Your task to perform on an android device: Clear all items from cart on bestbuy.com. Add "lenovo thinkpad" to the cart on bestbuy.com, then select checkout. Image 0: 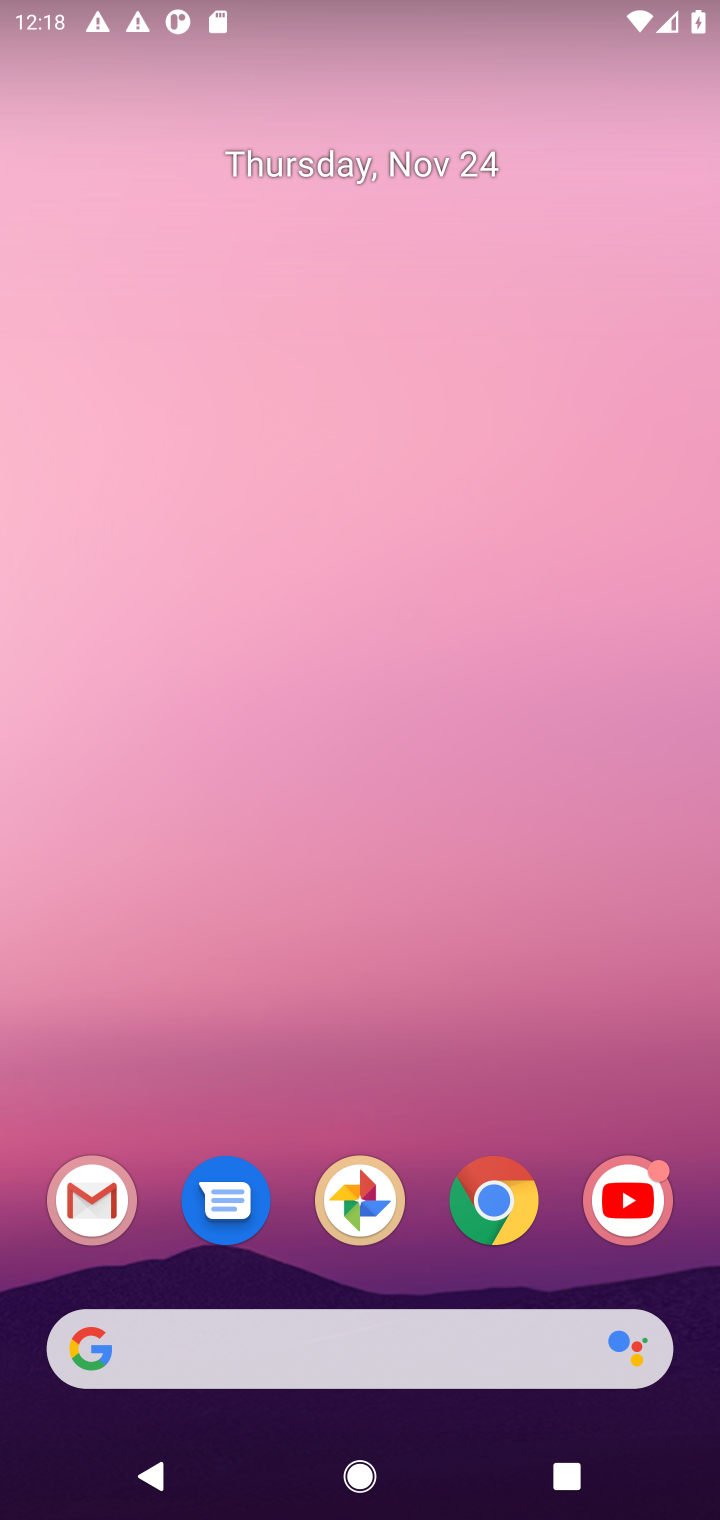
Step 0: click (405, 1347)
Your task to perform on an android device: Clear all items from cart on bestbuy.com. Add "lenovo thinkpad" to the cart on bestbuy.com, then select checkout. Image 1: 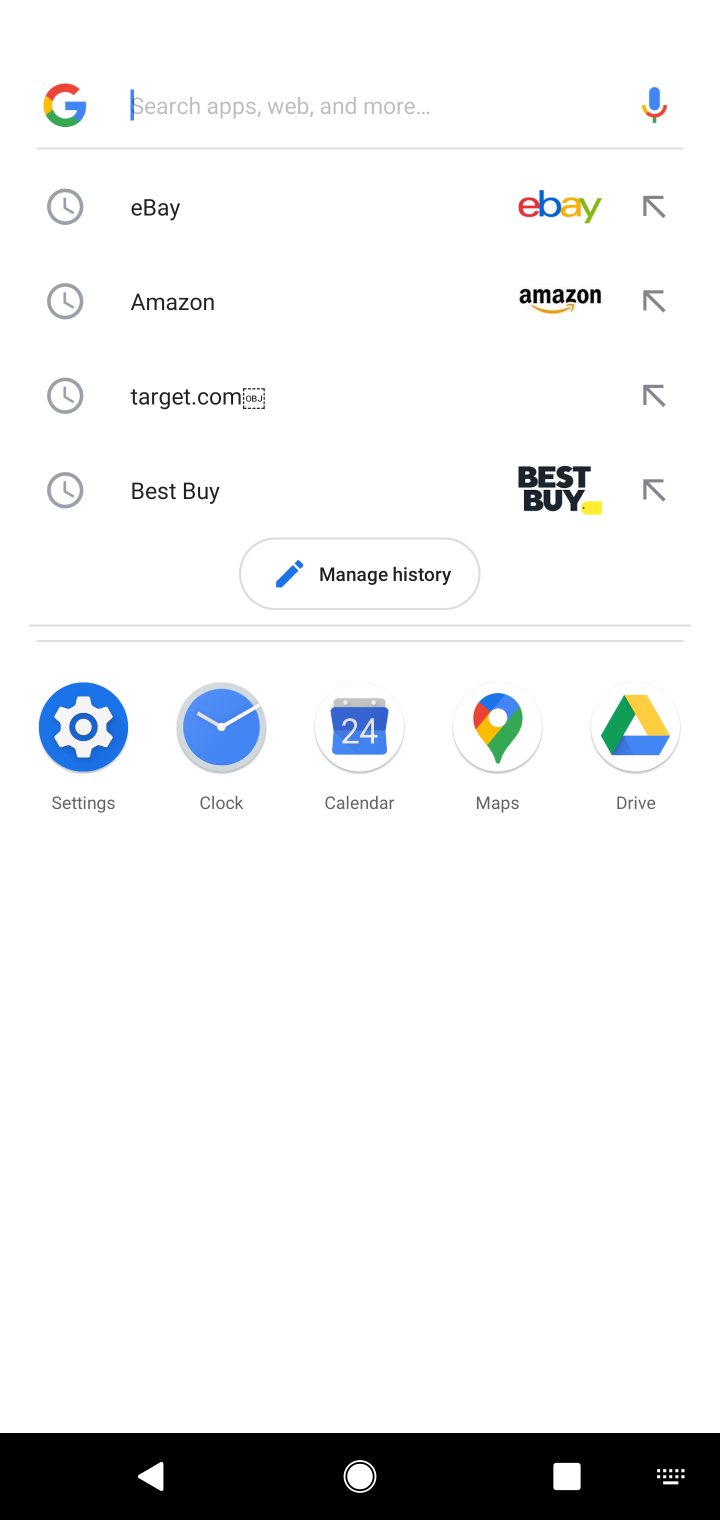
Step 1: type "bestbuy"
Your task to perform on an android device: Clear all items from cart on bestbuy.com. Add "lenovo thinkpad" to the cart on bestbuy.com, then select checkout. Image 2: 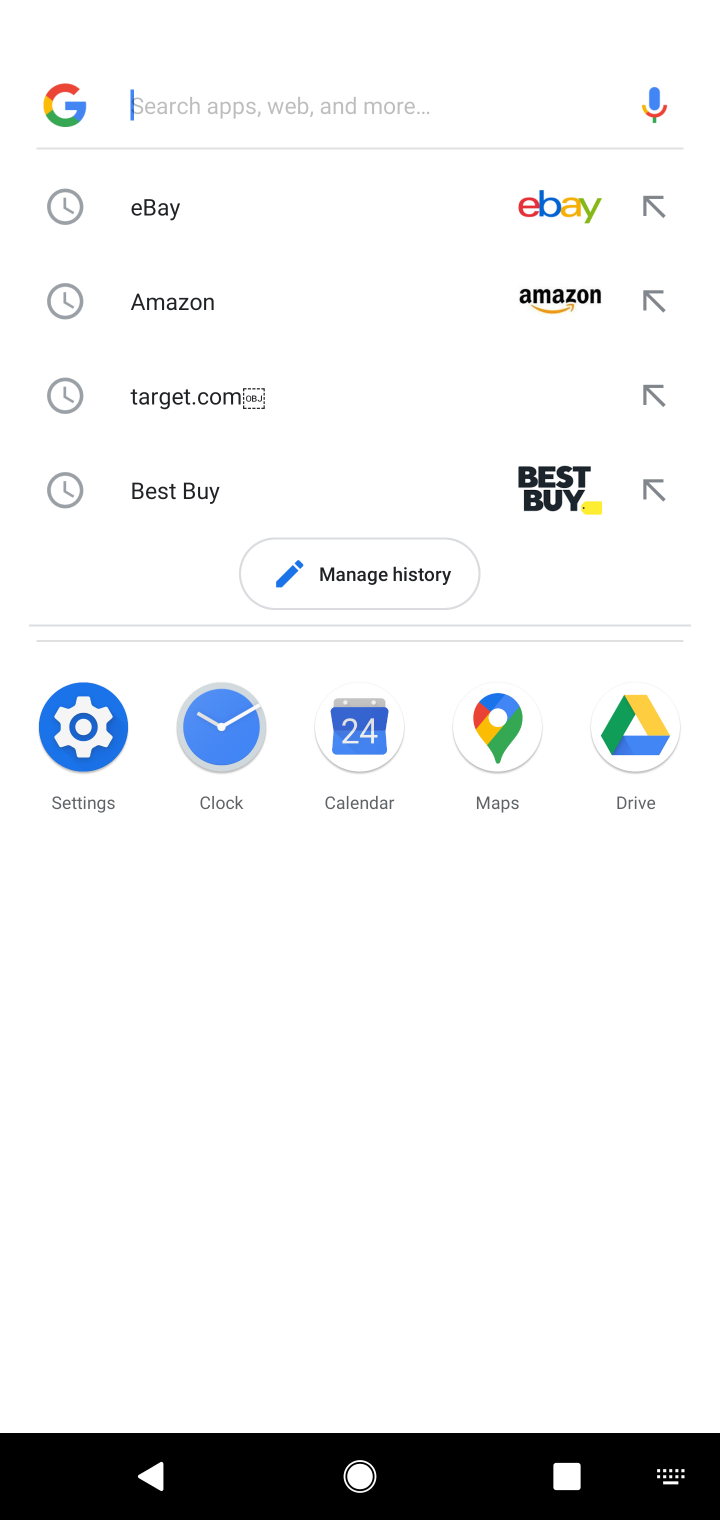
Step 2: click (177, 514)
Your task to perform on an android device: Clear all items from cart on bestbuy.com. Add "lenovo thinkpad" to the cart on bestbuy.com, then select checkout. Image 3: 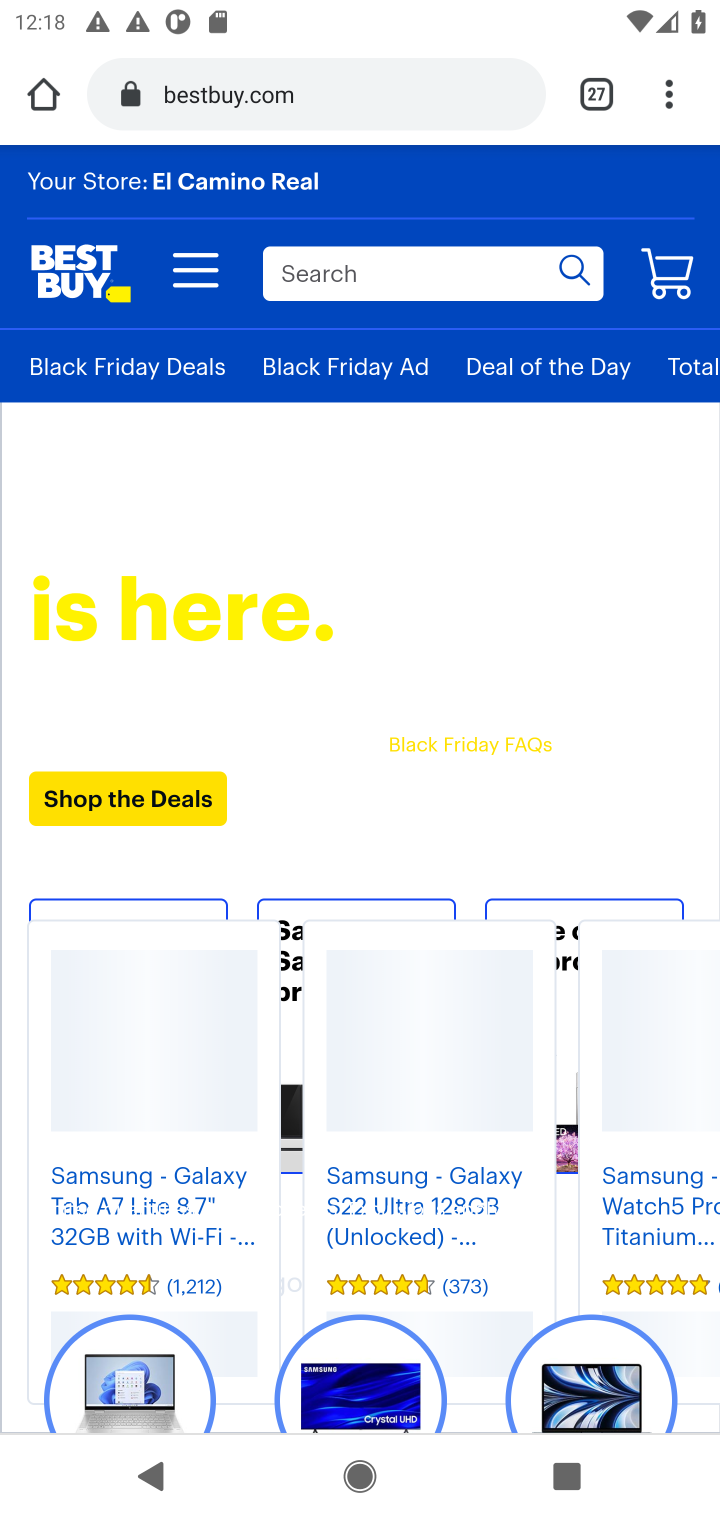
Step 3: click (329, 263)
Your task to perform on an android device: Clear all items from cart on bestbuy.com. Add "lenovo thinkpad" to the cart on bestbuy.com, then select checkout. Image 4: 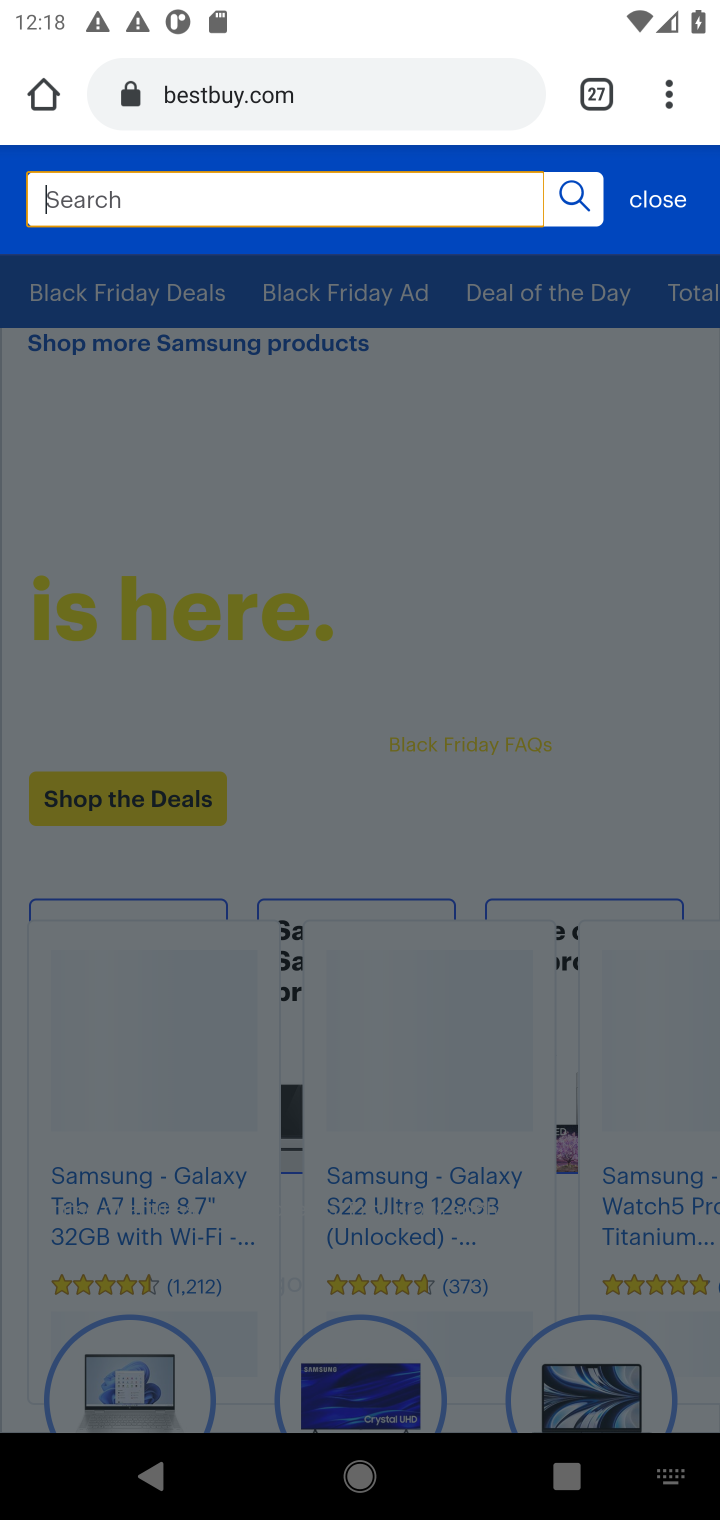
Step 4: type "lenovo thinkpad"
Your task to perform on an android device: Clear all items from cart on bestbuy.com. Add "lenovo thinkpad" to the cart on bestbuy.com, then select checkout. Image 5: 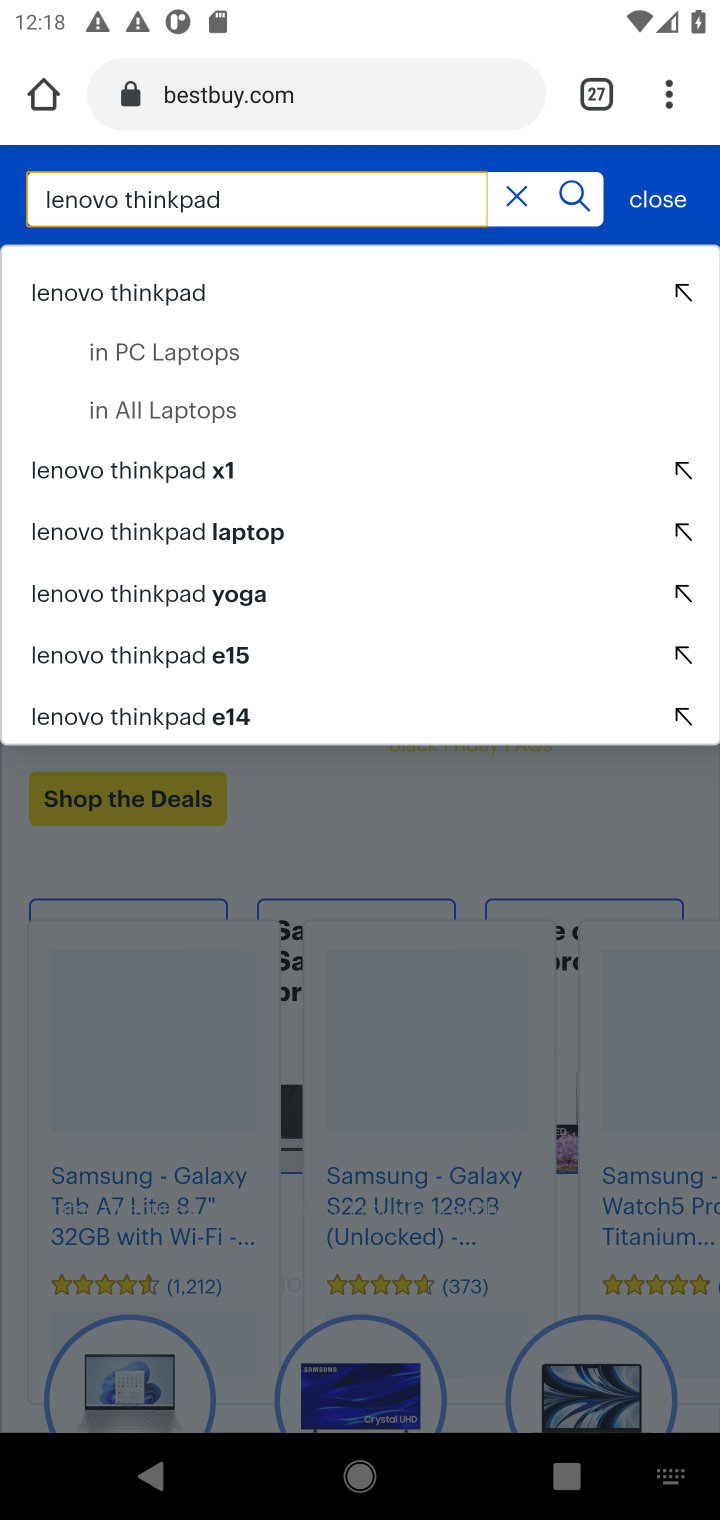
Step 5: click (157, 277)
Your task to perform on an android device: Clear all items from cart on bestbuy.com. Add "lenovo thinkpad" to the cart on bestbuy.com, then select checkout. Image 6: 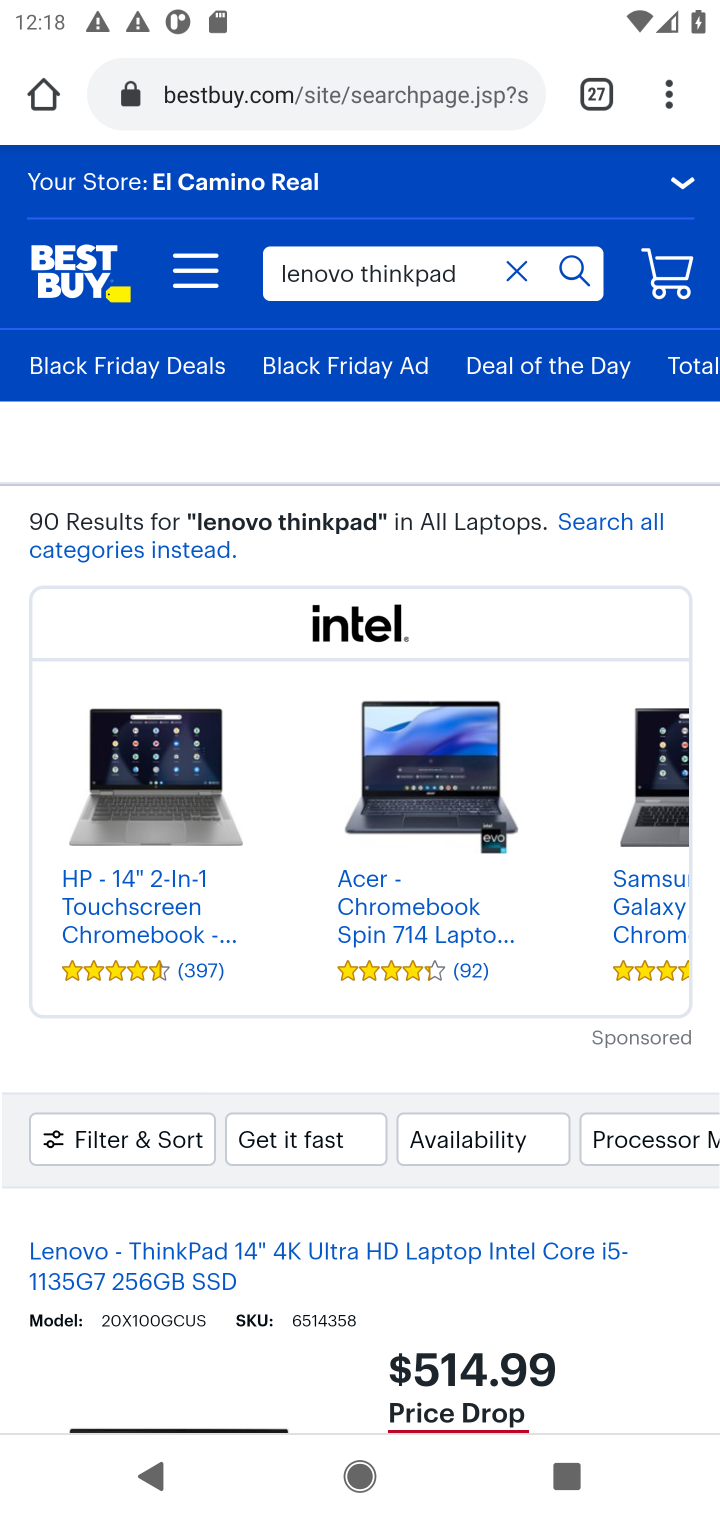
Step 6: drag from (293, 1069) to (300, 320)
Your task to perform on an android device: Clear all items from cart on bestbuy.com. Add "lenovo thinkpad" to the cart on bestbuy.com, then select checkout. Image 7: 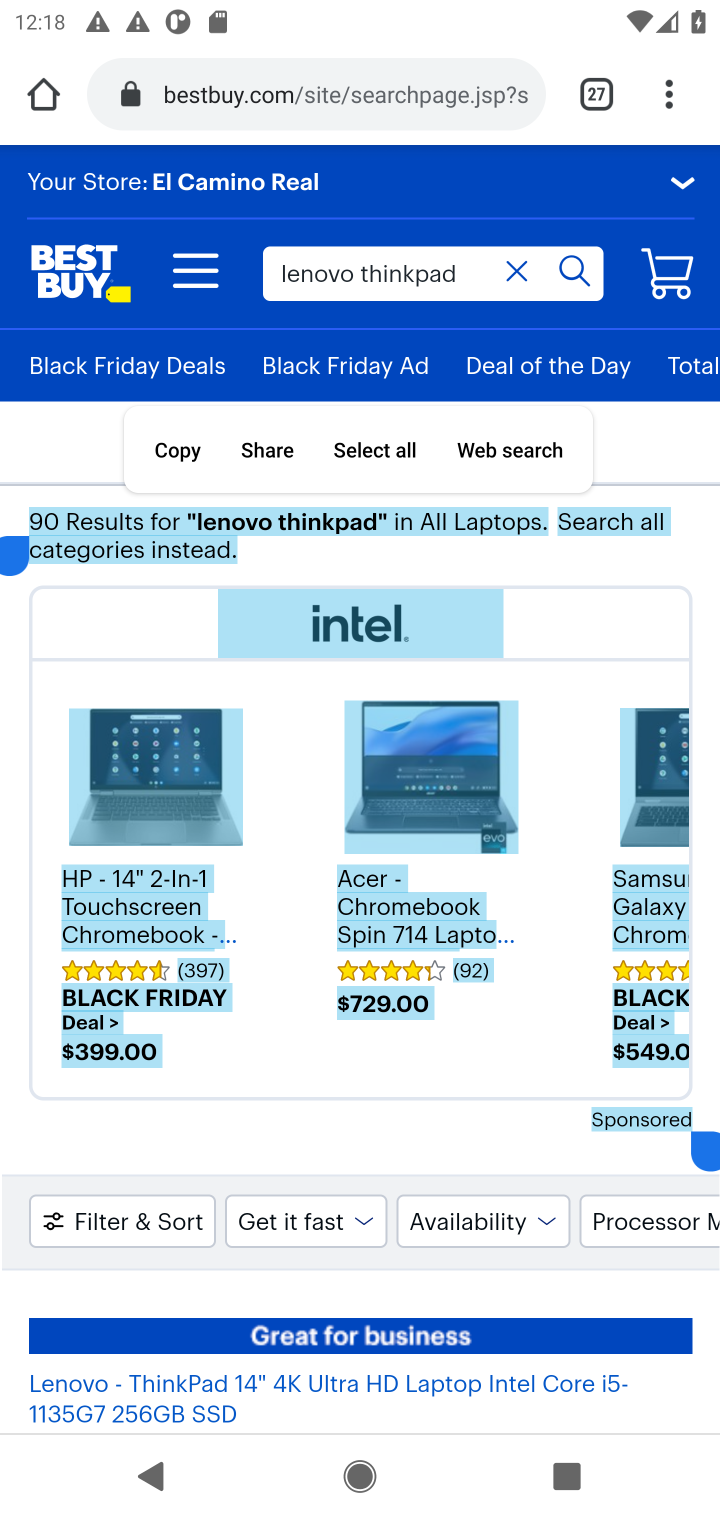
Step 7: click (323, 1123)
Your task to perform on an android device: Clear all items from cart on bestbuy.com. Add "lenovo thinkpad" to the cart on bestbuy.com, then select checkout. Image 8: 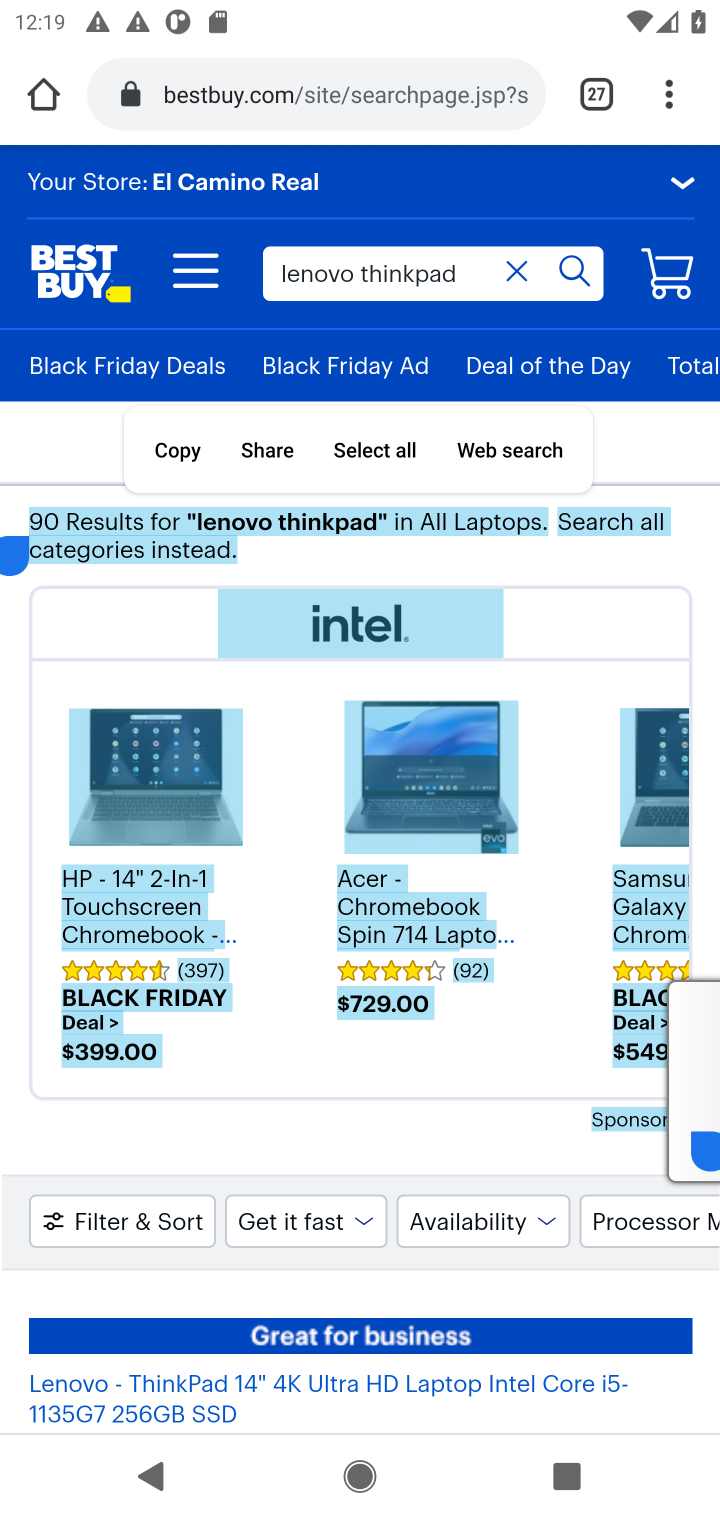
Step 8: task complete